Your task to perform on an android device: turn off notifications in google photos Image 0: 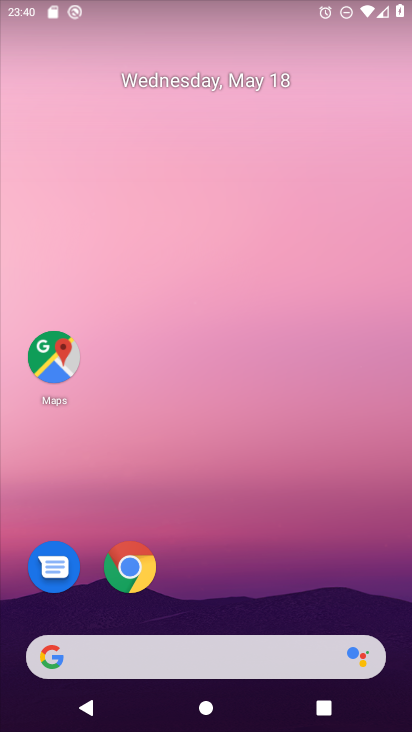
Step 0: drag from (273, 683) to (288, 238)
Your task to perform on an android device: turn off notifications in google photos Image 1: 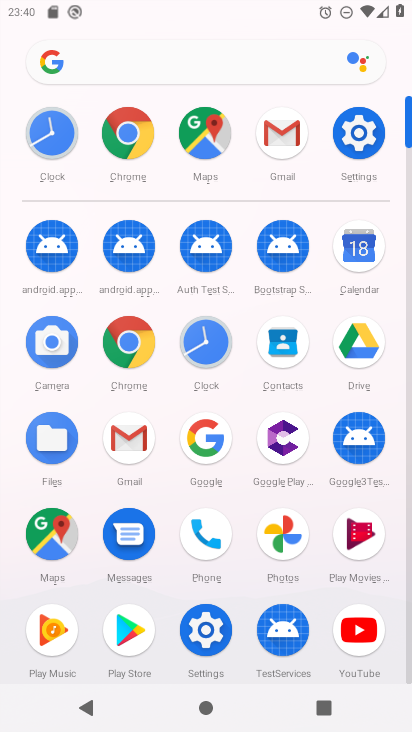
Step 1: click (277, 542)
Your task to perform on an android device: turn off notifications in google photos Image 2: 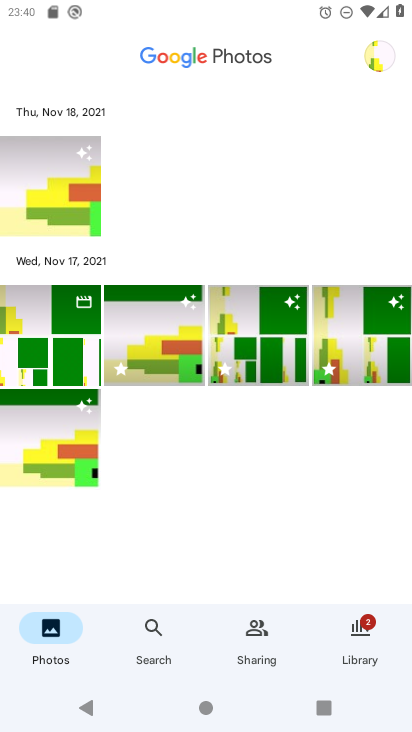
Step 2: click (375, 60)
Your task to perform on an android device: turn off notifications in google photos Image 3: 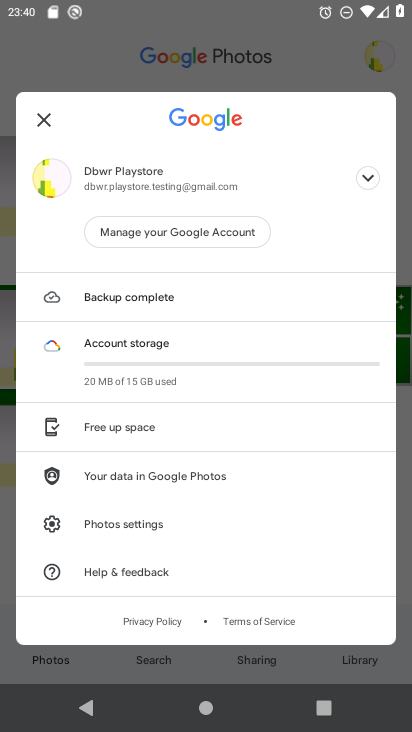
Step 3: click (117, 523)
Your task to perform on an android device: turn off notifications in google photos Image 4: 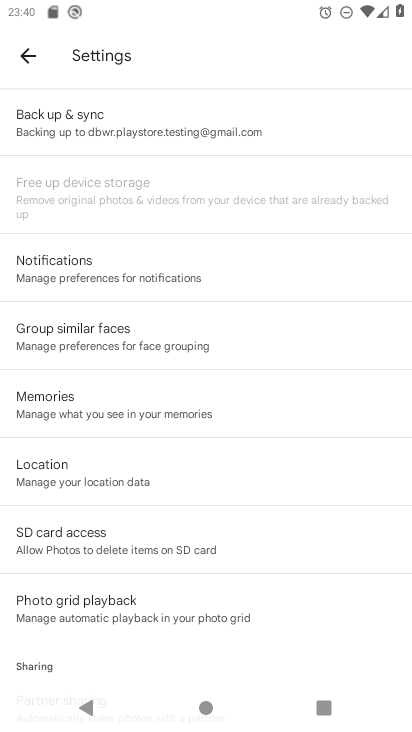
Step 4: click (117, 266)
Your task to perform on an android device: turn off notifications in google photos Image 5: 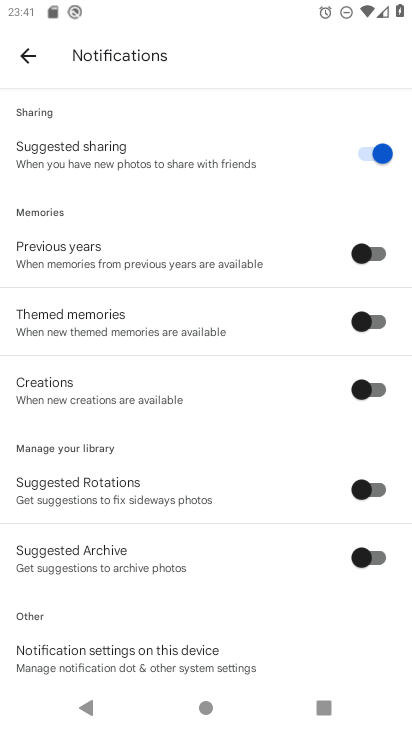
Step 5: click (121, 647)
Your task to perform on an android device: turn off notifications in google photos Image 6: 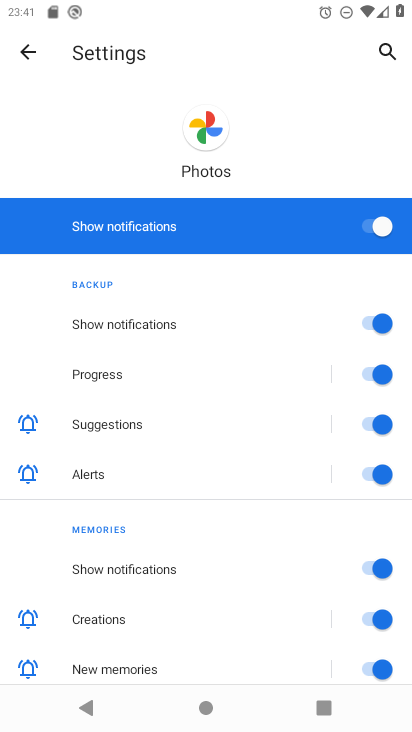
Step 6: click (354, 226)
Your task to perform on an android device: turn off notifications in google photos Image 7: 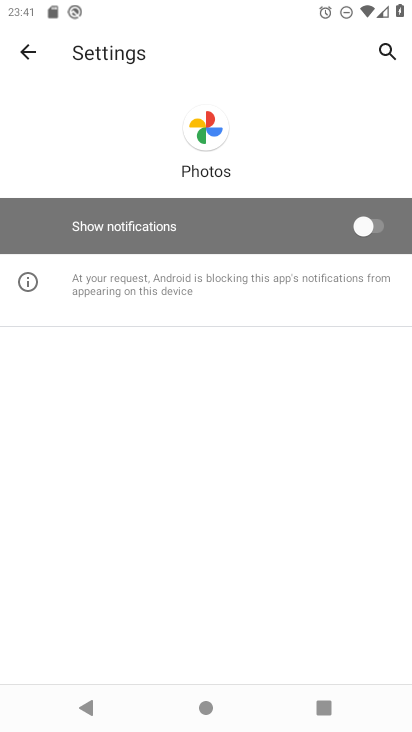
Step 7: task complete